Your task to perform on an android device: Open Android settings Image 0: 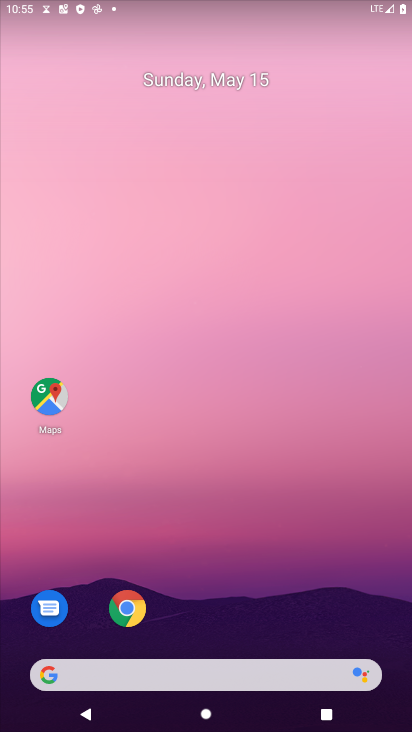
Step 0: drag from (282, 507) to (309, 73)
Your task to perform on an android device: Open Android settings Image 1: 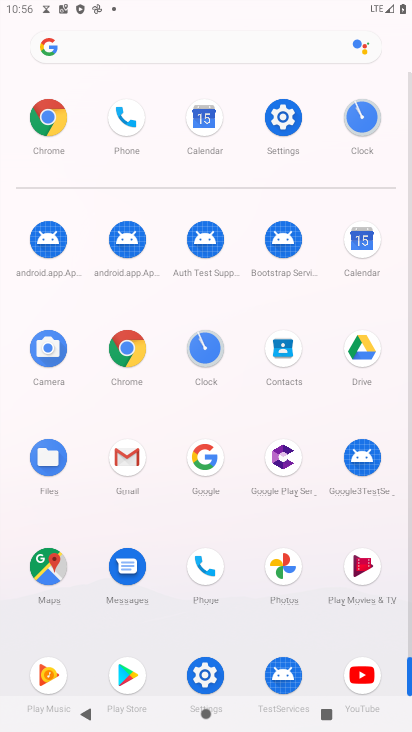
Step 1: click (282, 140)
Your task to perform on an android device: Open Android settings Image 2: 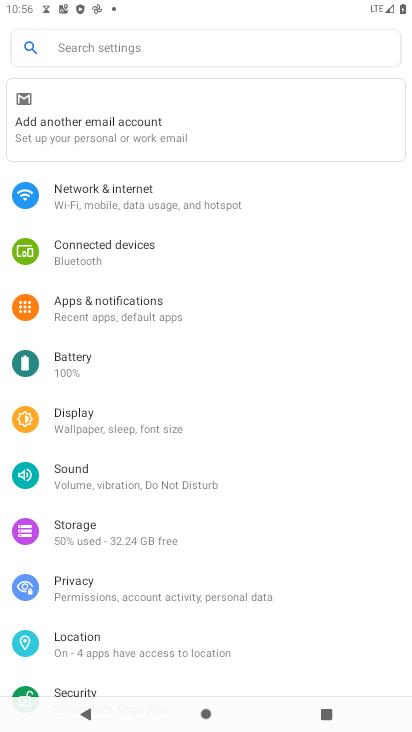
Step 2: task complete